Your task to perform on an android device: turn off smart reply in the gmail app Image 0: 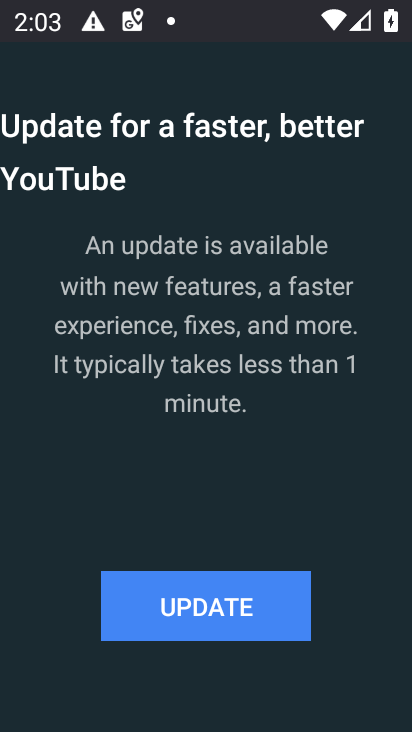
Step 0: press home button
Your task to perform on an android device: turn off smart reply in the gmail app Image 1: 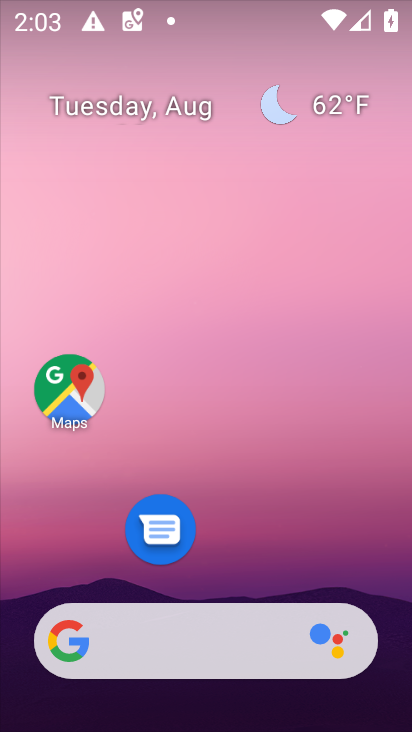
Step 1: drag from (275, 582) to (257, 83)
Your task to perform on an android device: turn off smart reply in the gmail app Image 2: 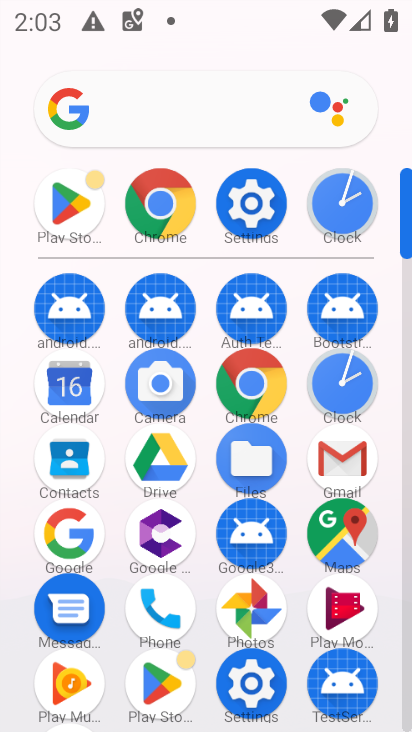
Step 2: click (324, 489)
Your task to perform on an android device: turn off smart reply in the gmail app Image 3: 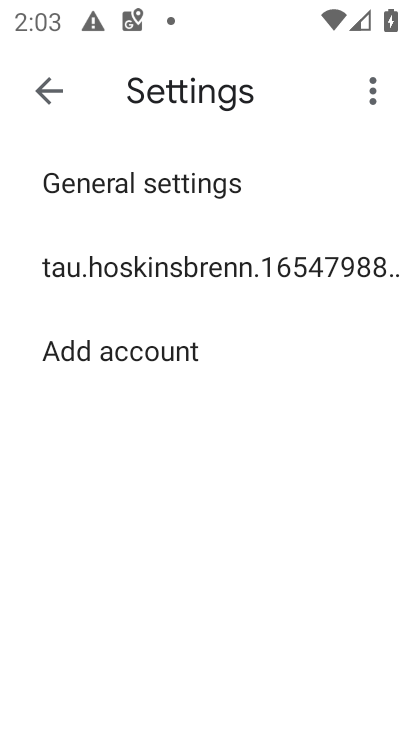
Step 3: click (63, 99)
Your task to perform on an android device: turn off smart reply in the gmail app Image 4: 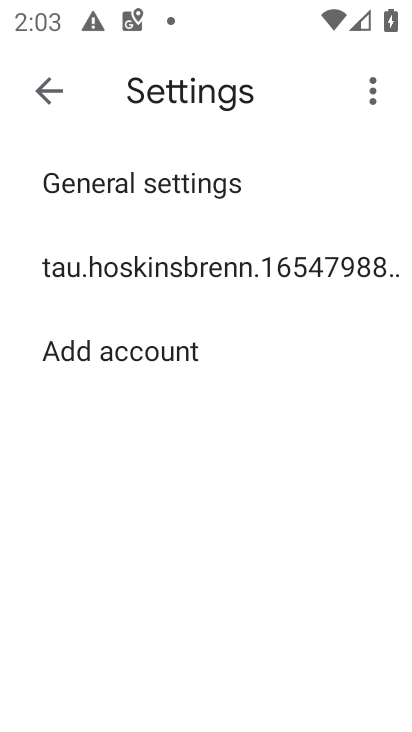
Step 4: click (63, 99)
Your task to perform on an android device: turn off smart reply in the gmail app Image 5: 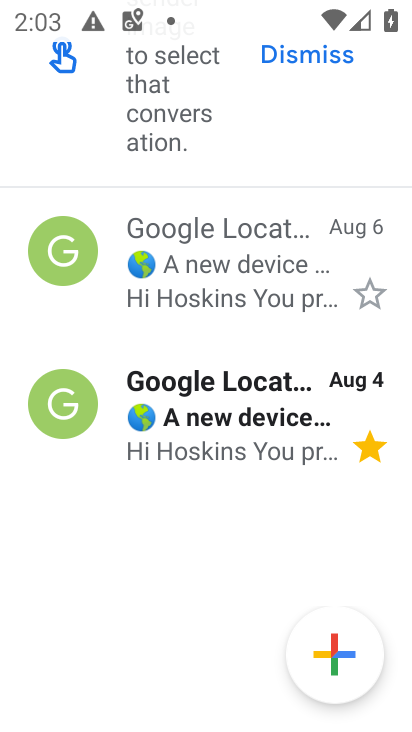
Step 5: drag from (84, 139) to (146, 392)
Your task to perform on an android device: turn off smart reply in the gmail app Image 6: 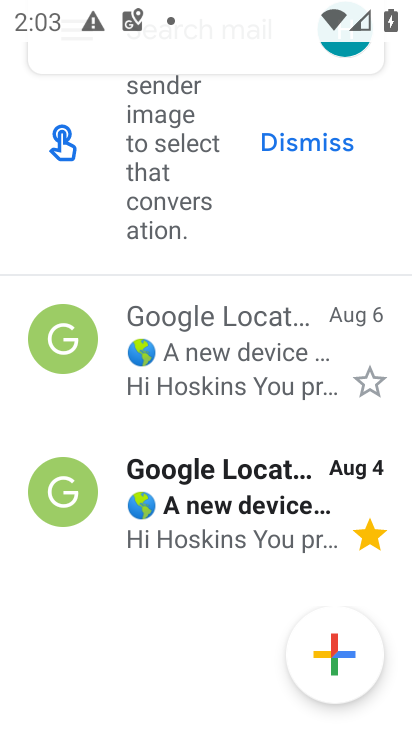
Step 6: drag from (83, 234) to (180, 731)
Your task to perform on an android device: turn off smart reply in the gmail app Image 7: 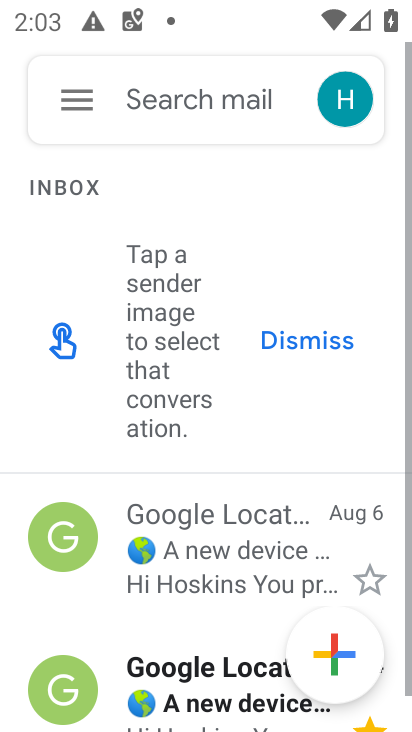
Step 7: click (61, 120)
Your task to perform on an android device: turn off smart reply in the gmail app Image 8: 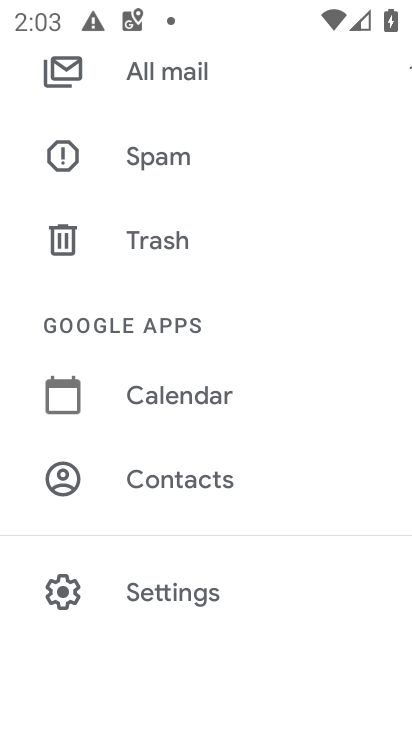
Step 8: click (206, 581)
Your task to perform on an android device: turn off smart reply in the gmail app Image 9: 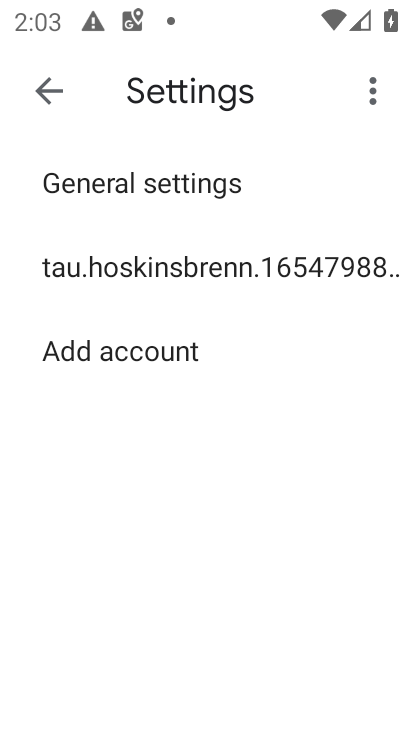
Step 9: click (149, 272)
Your task to perform on an android device: turn off smart reply in the gmail app Image 10: 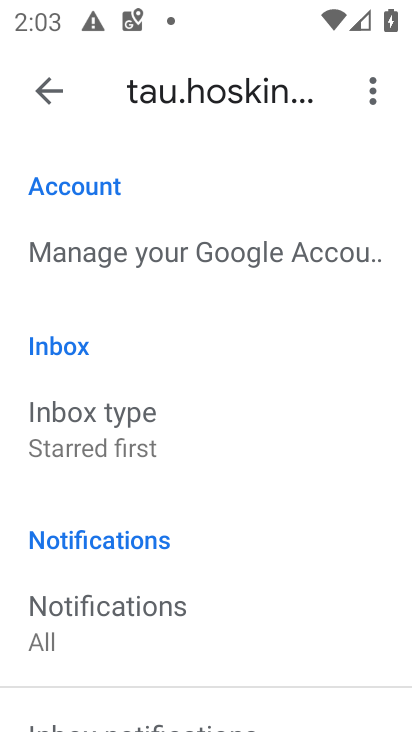
Step 10: drag from (177, 544) to (198, 189)
Your task to perform on an android device: turn off smart reply in the gmail app Image 11: 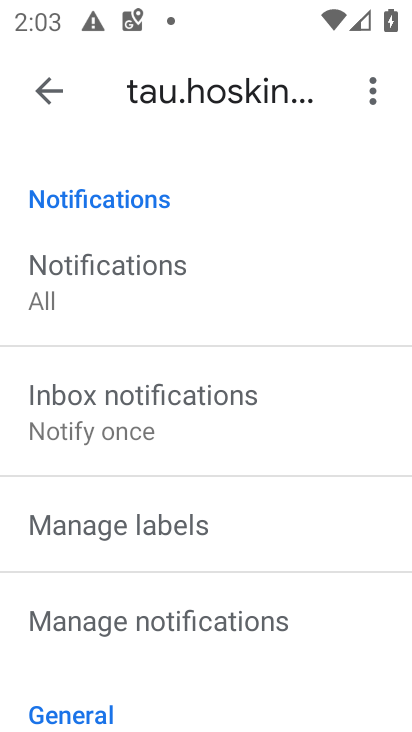
Step 11: drag from (233, 631) to (210, 417)
Your task to perform on an android device: turn off smart reply in the gmail app Image 12: 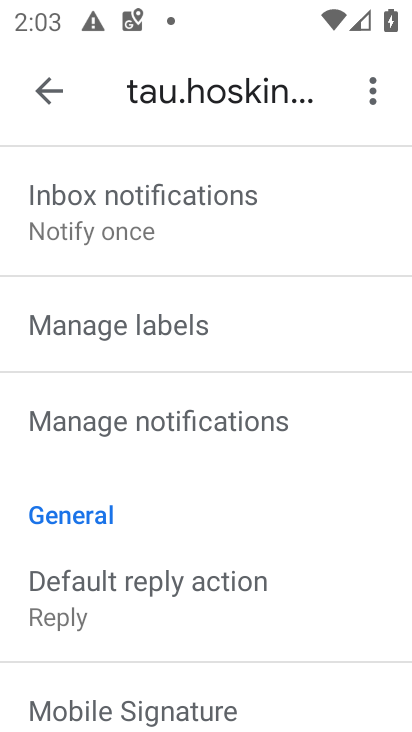
Step 12: drag from (211, 627) to (181, 272)
Your task to perform on an android device: turn off smart reply in the gmail app Image 13: 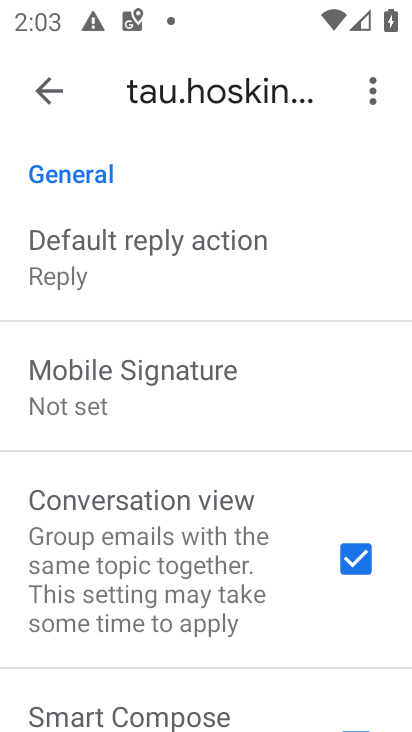
Step 13: drag from (192, 603) to (182, 418)
Your task to perform on an android device: turn off smart reply in the gmail app Image 14: 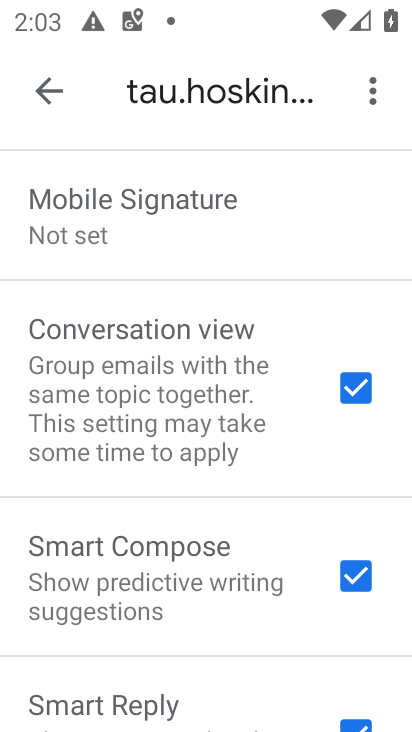
Step 14: drag from (176, 660) to (166, 506)
Your task to perform on an android device: turn off smart reply in the gmail app Image 15: 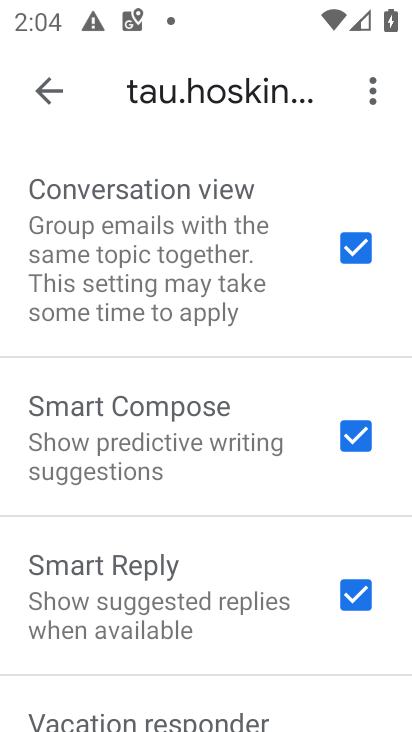
Step 15: click (324, 589)
Your task to perform on an android device: turn off smart reply in the gmail app Image 16: 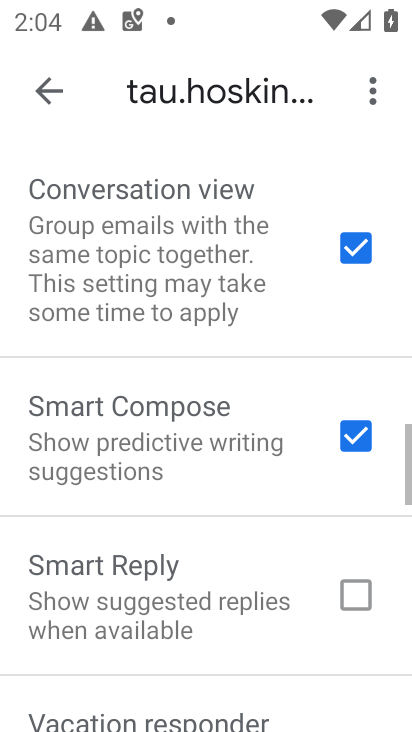
Step 16: task complete